Your task to perform on an android device: show emergency info Image 0: 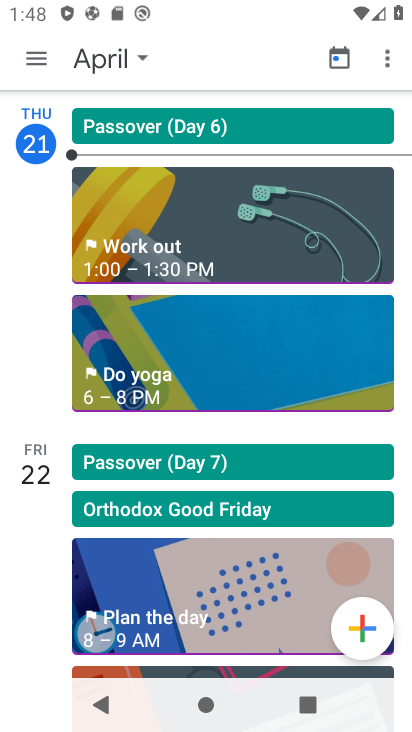
Step 0: drag from (268, 4) to (262, 423)
Your task to perform on an android device: show emergency info Image 1: 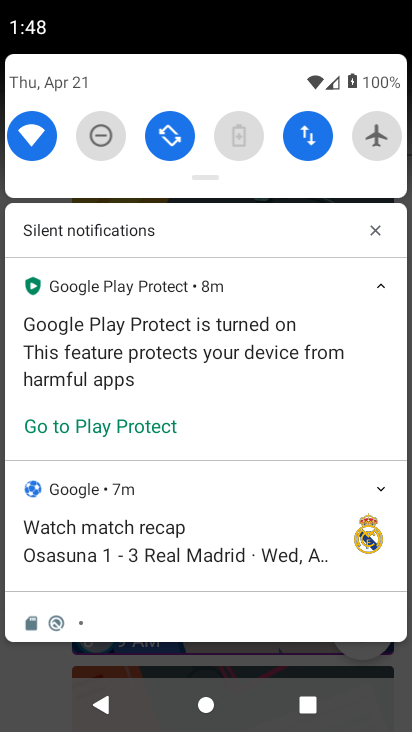
Step 1: drag from (192, 93) to (247, 614)
Your task to perform on an android device: show emergency info Image 2: 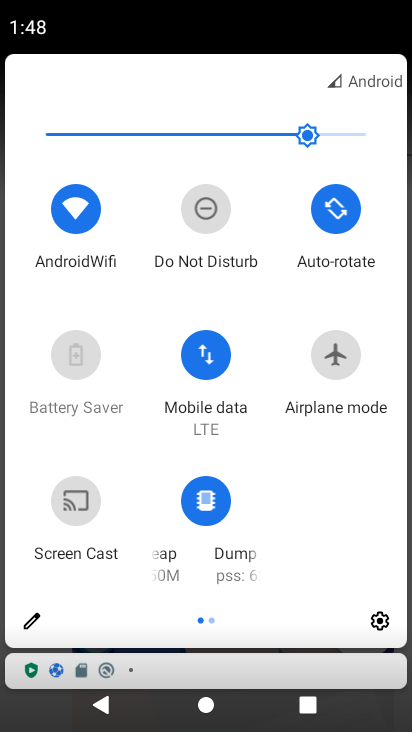
Step 2: click (384, 636)
Your task to perform on an android device: show emergency info Image 3: 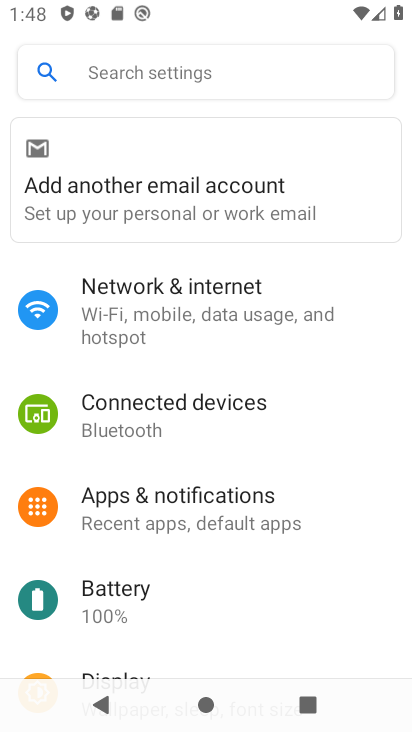
Step 3: drag from (182, 569) to (285, 84)
Your task to perform on an android device: show emergency info Image 4: 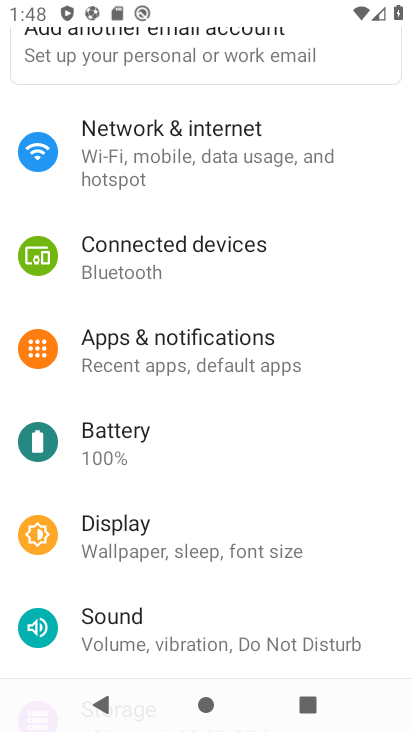
Step 4: drag from (93, 645) to (141, 159)
Your task to perform on an android device: show emergency info Image 5: 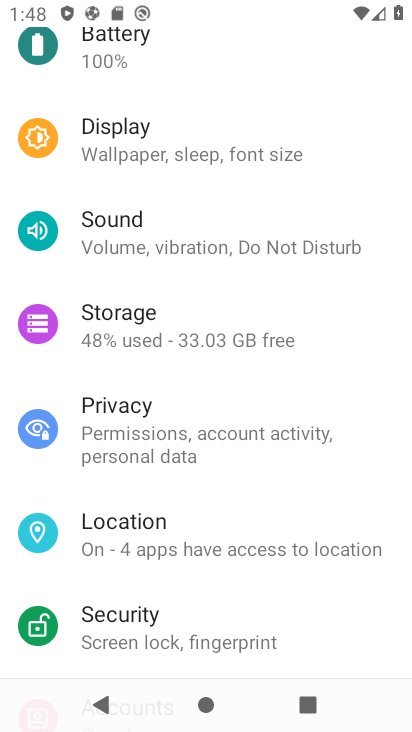
Step 5: drag from (82, 653) to (182, 212)
Your task to perform on an android device: show emergency info Image 6: 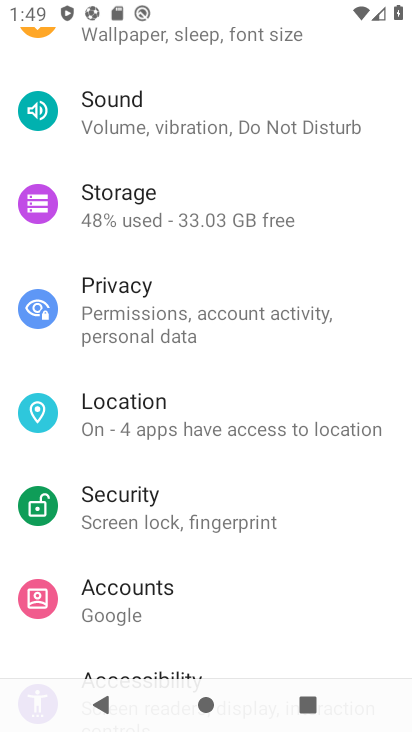
Step 6: drag from (57, 635) to (179, 181)
Your task to perform on an android device: show emergency info Image 7: 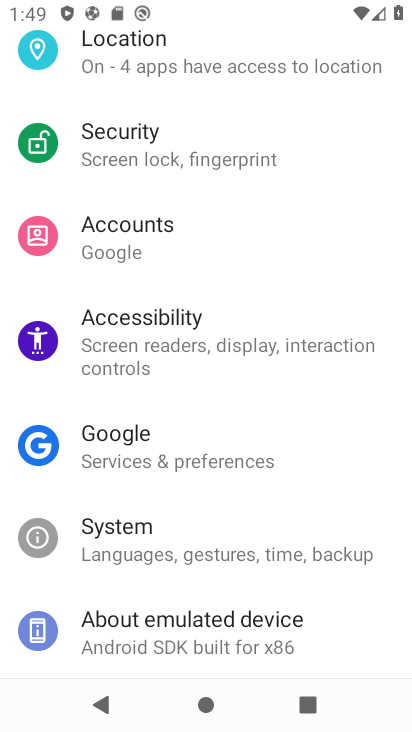
Step 7: click (78, 630)
Your task to perform on an android device: show emergency info Image 8: 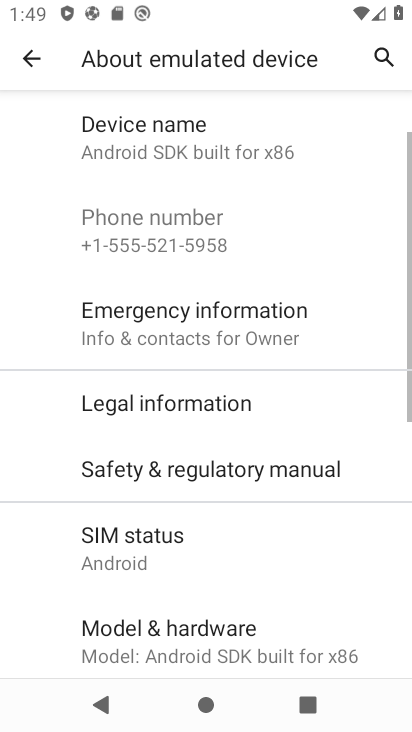
Step 8: click (187, 342)
Your task to perform on an android device: show emergency info Image 9: 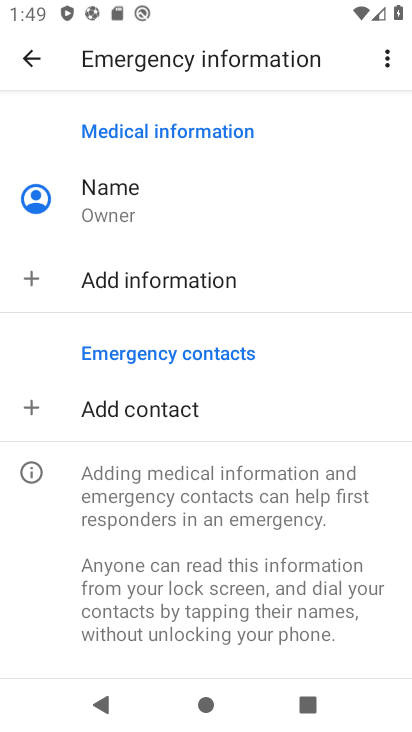
Step 9: task complete